Your task to perform on an android device: Open Google Chrome Image 0: 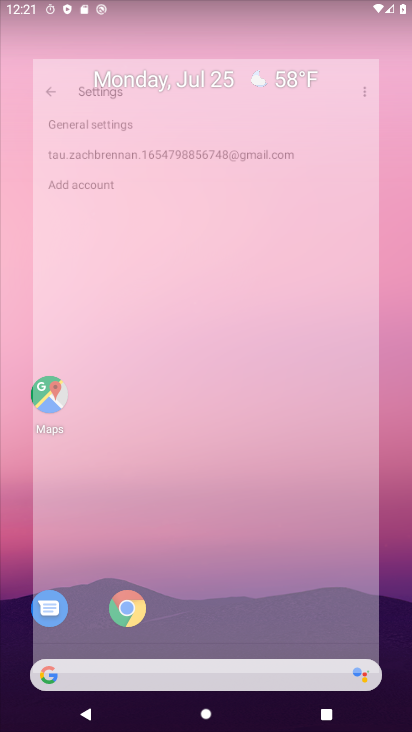
Step 0: drag from (382, 602) to (326, 110)
Your task to perform on an android device: Open Google Chrome Image 1: 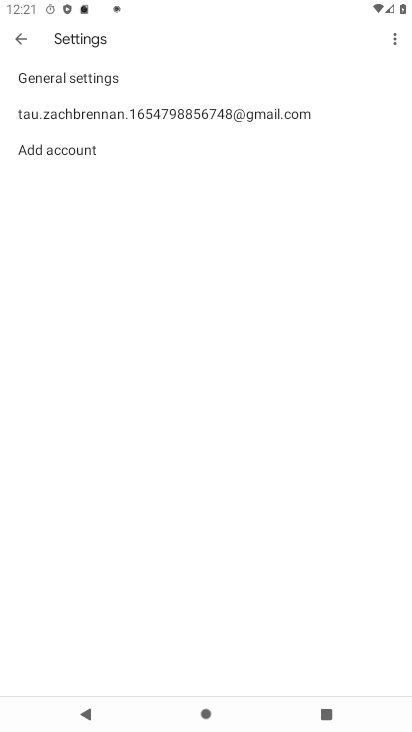
Step 1: press home button
Your task to perform on an android device: Open Google Chrome Image 2: 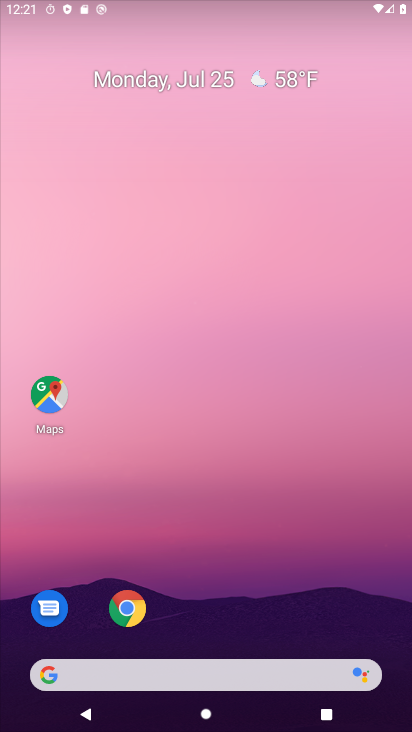
Step 2: drag from (346, 598) to (268, 95)
Your task to perform on an android device: Open Google Chrome Image 3: 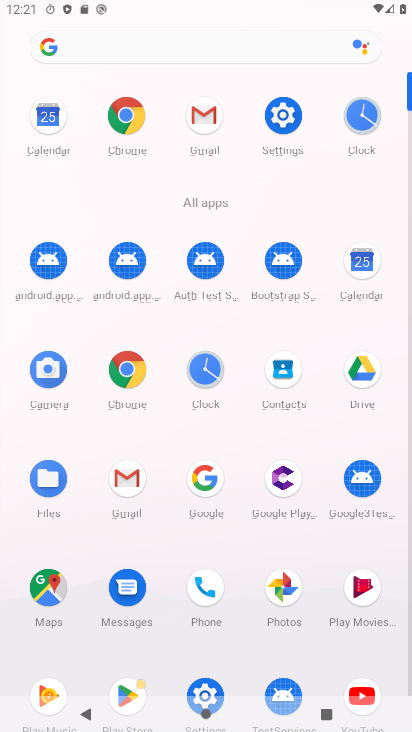
Step 3: click (138, 369)
Your task to perform on an android device: Open Google Chrome Image 4: 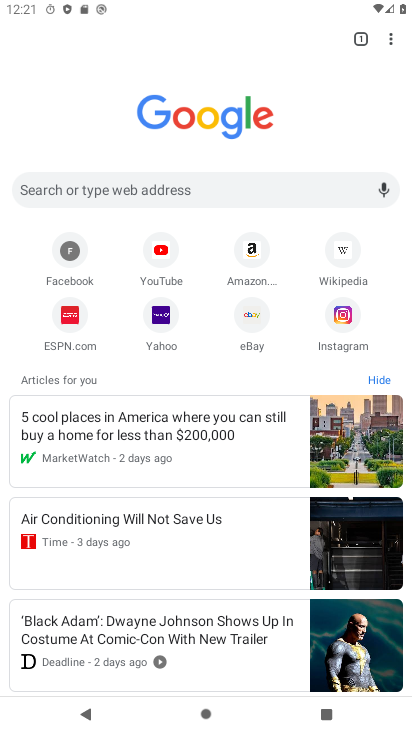
Step 4: task complete